Your task to perform on an android device: Go to privacy settings Image 0: 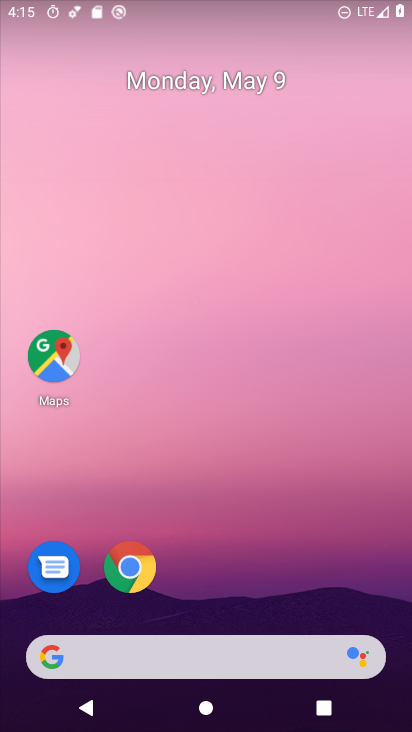
Step 0: drag from (261, 600) to (209, 112)
Your task to perform on an android device: Go to privacy settings Image 1: 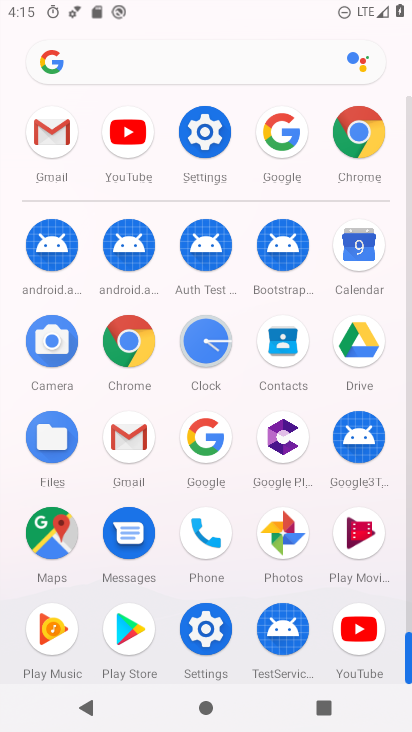
Step 1: click (211, 137)
Your task to perform on an android device: Go to privacy settings Image 2: 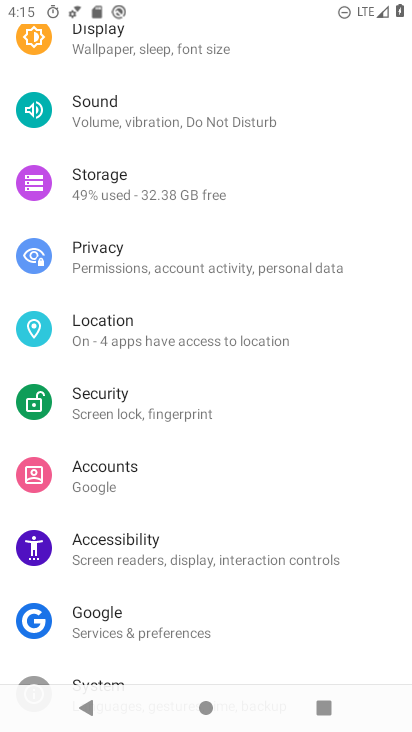
Step 2: click (215, 251)
Your task to perform on an android device: Go to privacy settings Image 3: 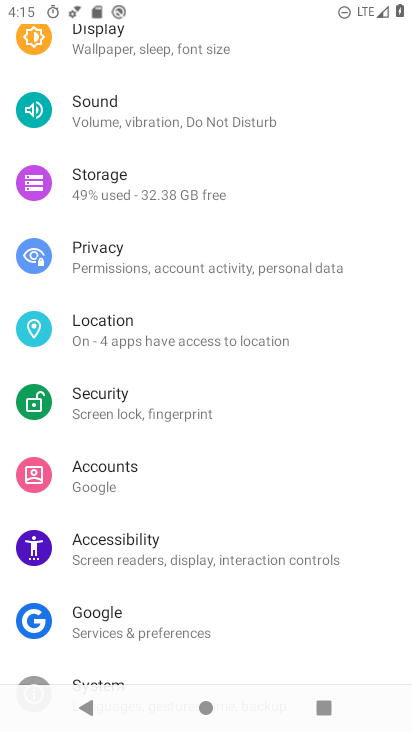
Step 3: click (158, 261)
Your task to perform on an android device: Go to privacy settings Image 4: 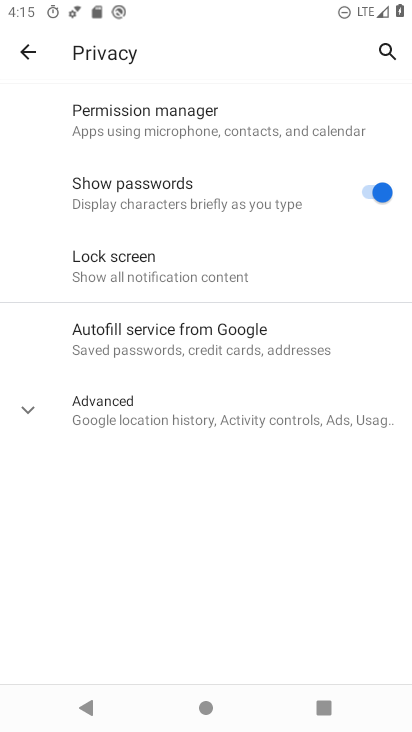
Step 4: task complete